Your task to perform on an android device: open a new tab in the chrome app Image 0: 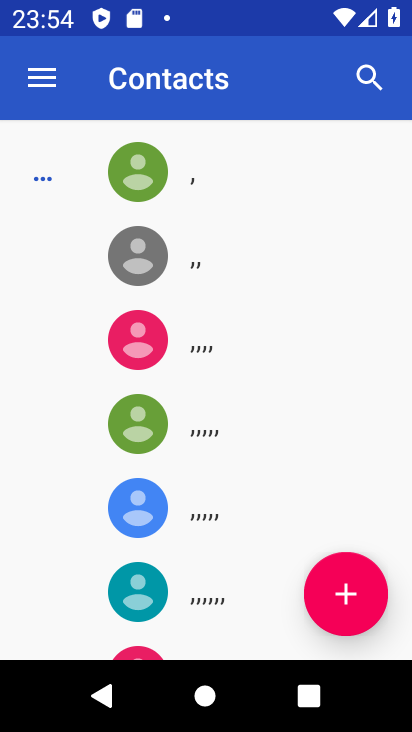
Step 0: press home button
Your task to perform on an android device: open a new tab in the chrome app Image 1: 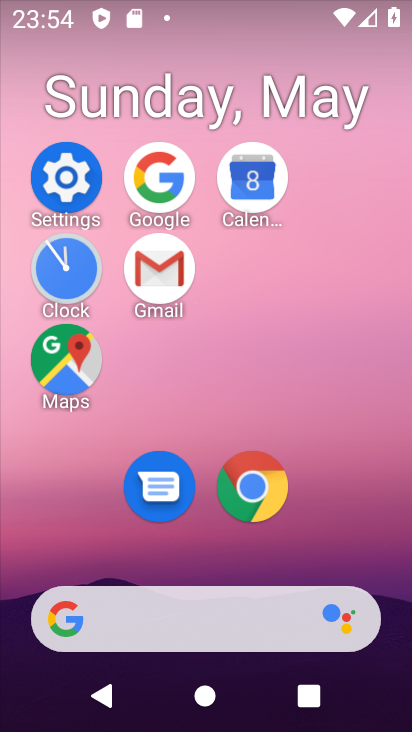
Step 1: click (256, 478)
Your task to perform on an android device: open a new tab in the chrome app Image 2: 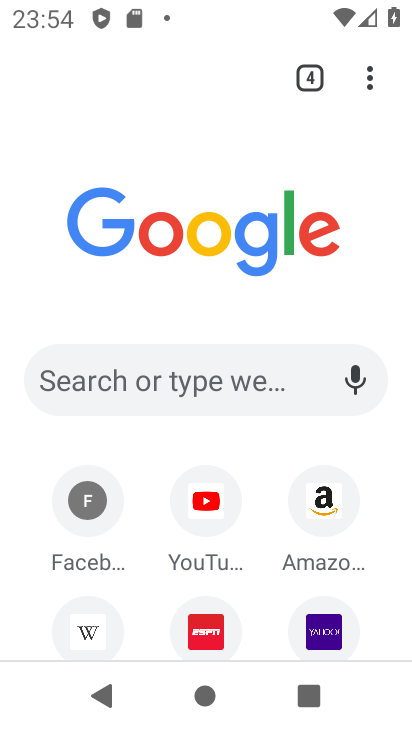
Step 2: click (306, 93)
Your task to perform on an android device: open a new tab in the chrome app Image 3: 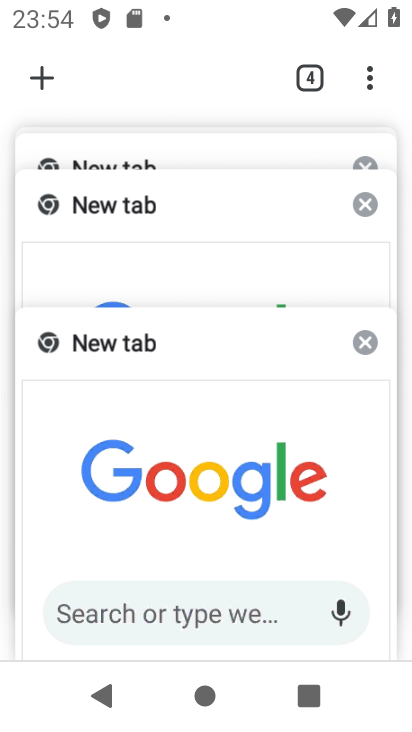
Step 3: click (57, 93)
Your task to perform on an android device: open a new tab in the chrome app Image 4: 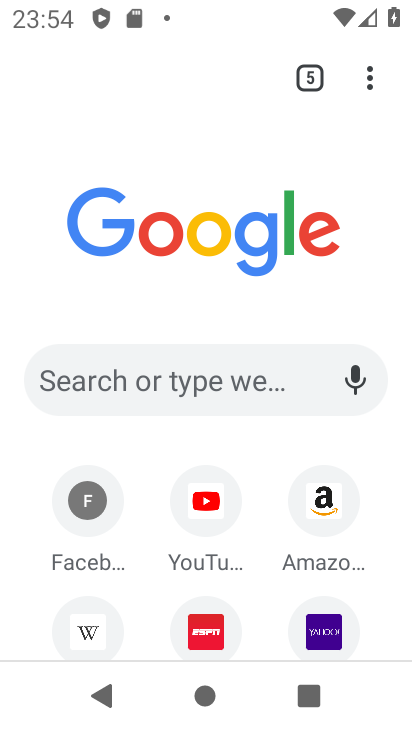
Step 4: task complete